Your task to perform on an android device: open wifi settings Image 0: 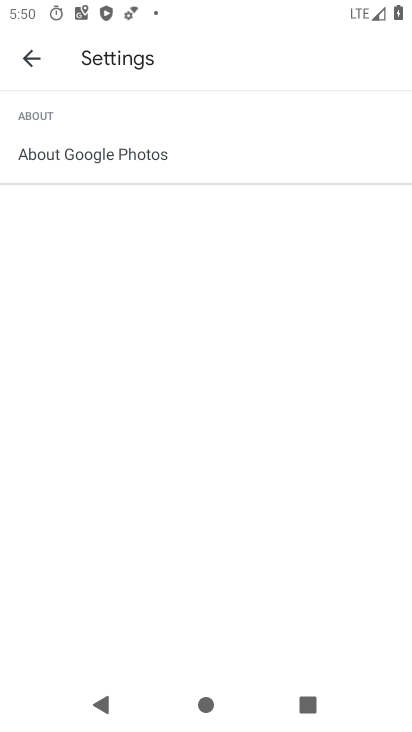
Step 0: press home button
Your task to perform on an android device: open wifi settings Image 1: 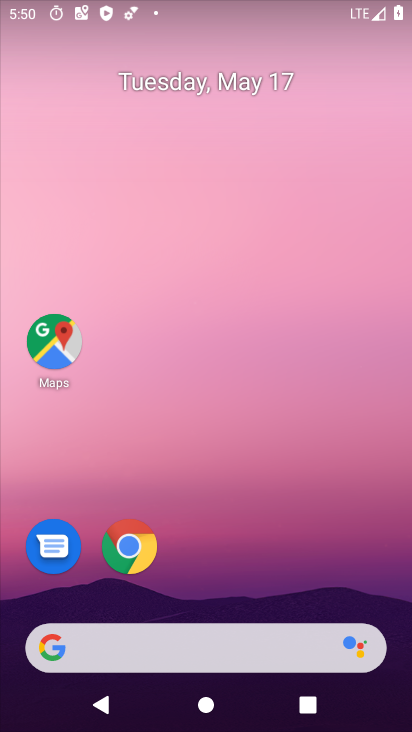
Step 1: drag from (181, 408) to (169, 72)
Your task to perform on an android device: open wifi settings Image 2: 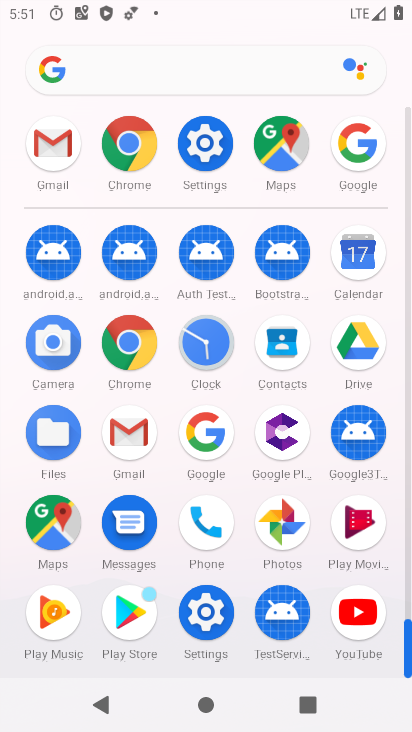
Step 2: click (198, 153)
Your task to perform on an android device: open wifi settings Image 3: 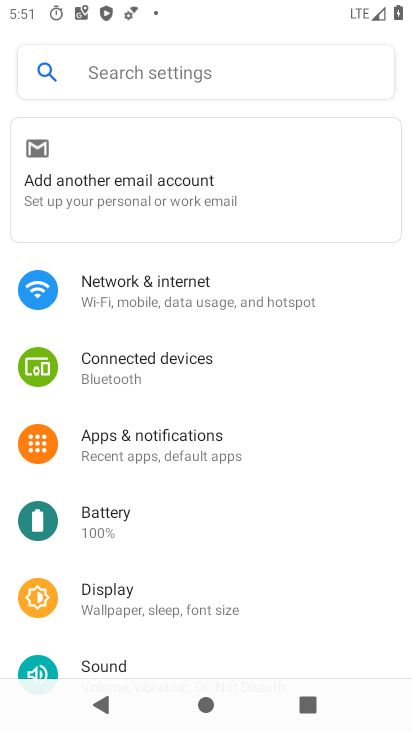
Step 3: click (155, 302)
Your task to perform on an android device: open wifi settings Image 4: 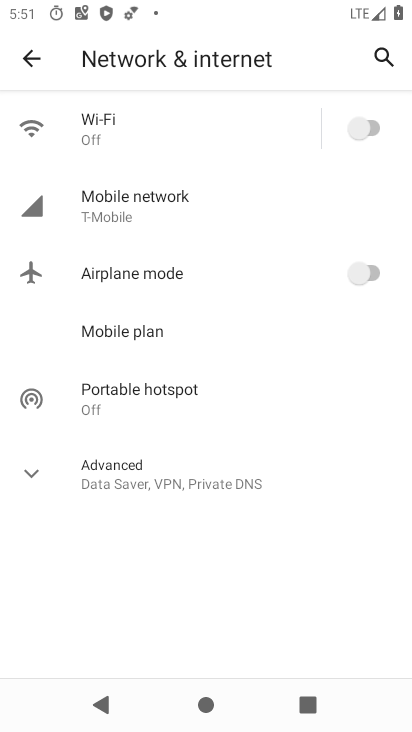
Step 4: click (372, 132)
Your task to perform on an android device: open wifi settings Image 5: 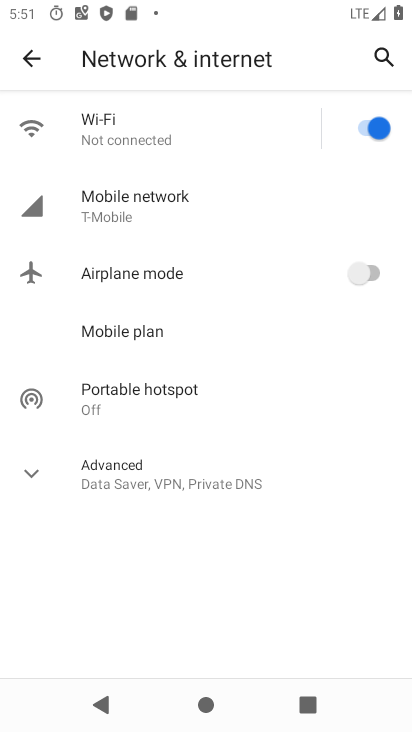
Step 5: task complete